Your task to perform on an android device: Open the phone app and click the voicemail tab. Image 0: 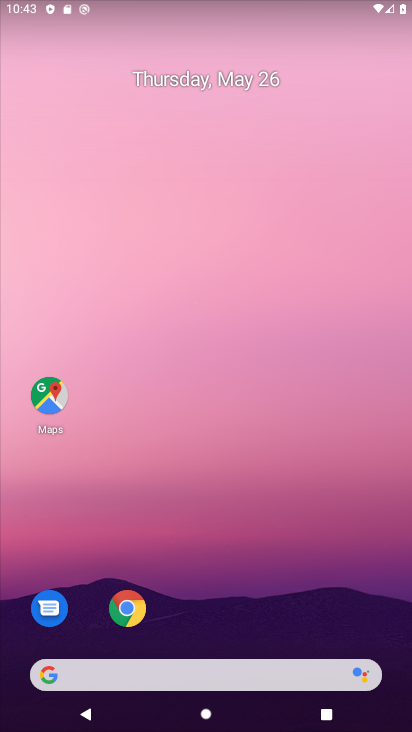
Step 0: drag from (212, 591) to (280, 53)
Your task to perform on an android device: Open the phone app and click the voicemail tab. Image 1: 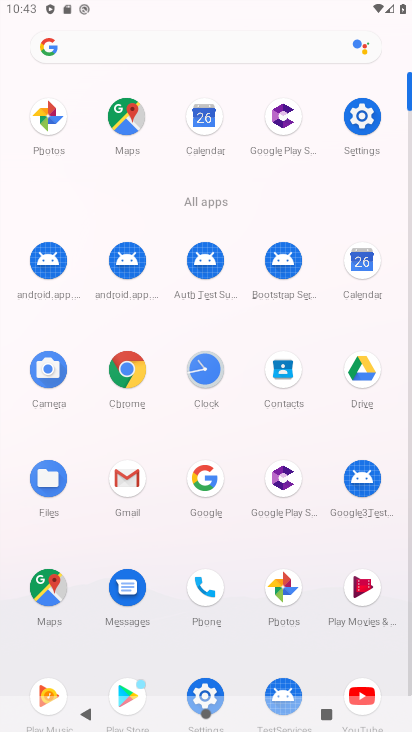
Step 1: click (208, 585)
Your task to perform on an android device: Open the phone app and click the voicemail tab. Image 2: 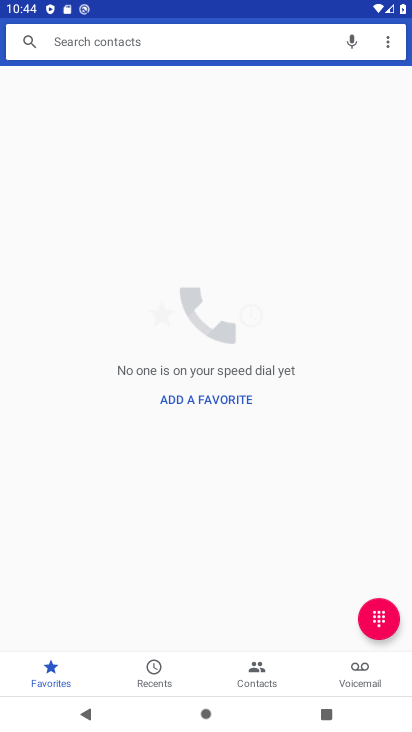
Step 2: click (360, 675)
Your task to perform on an android device: Open the phone app and click the voicemail tab. Image 3: 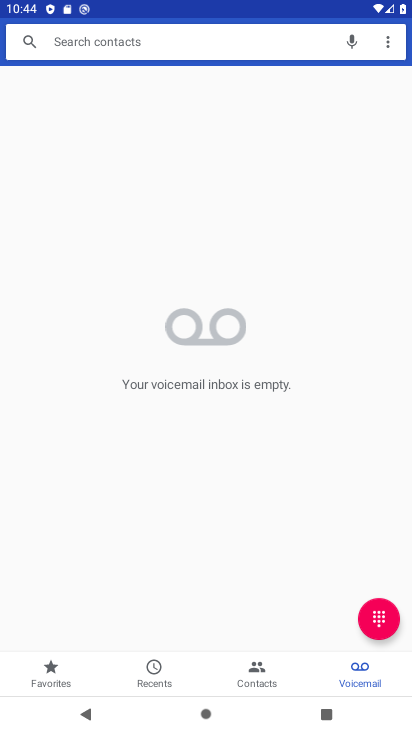
Step 3: task complete